Your task to perform on an android device: Go to Google maps Image 0: 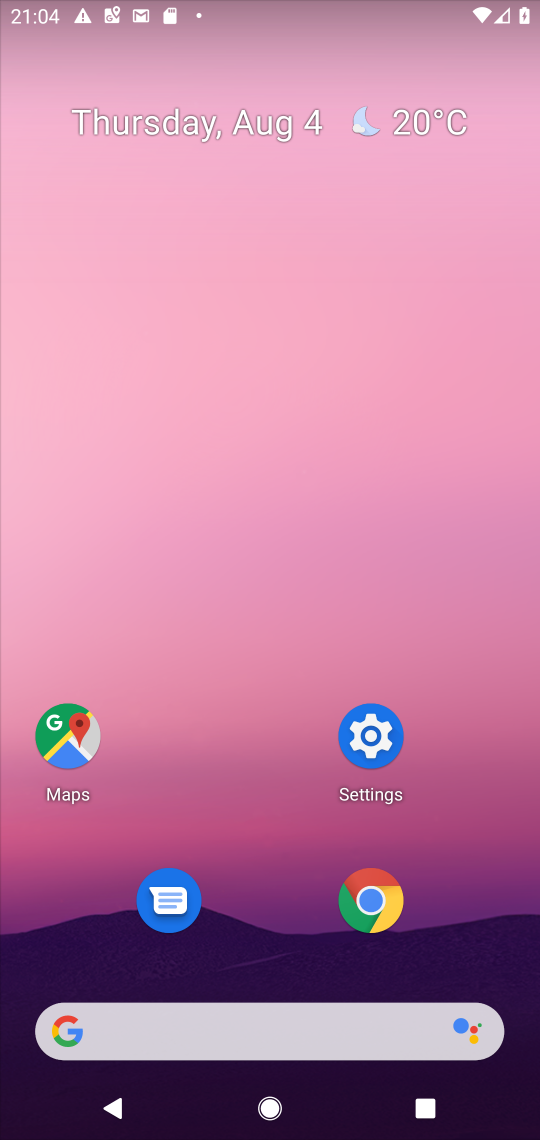
Step 0: click (61, 741)
Your task to perform on an android device: Go to Google maps Image 1: 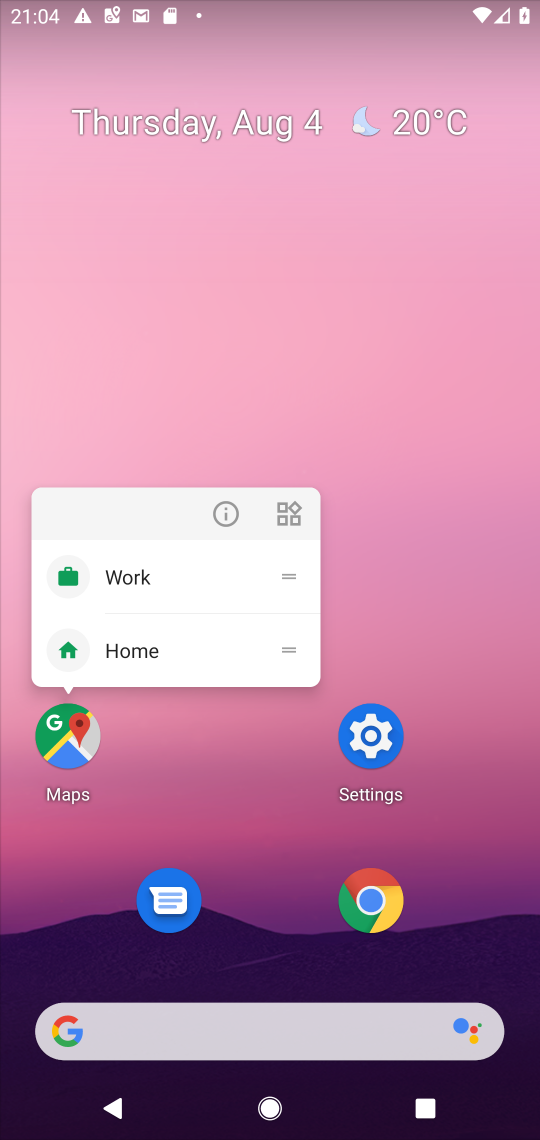
Step 1: click (77, 722)
Your task to perform on an android device: Go to Google maps Image 2: 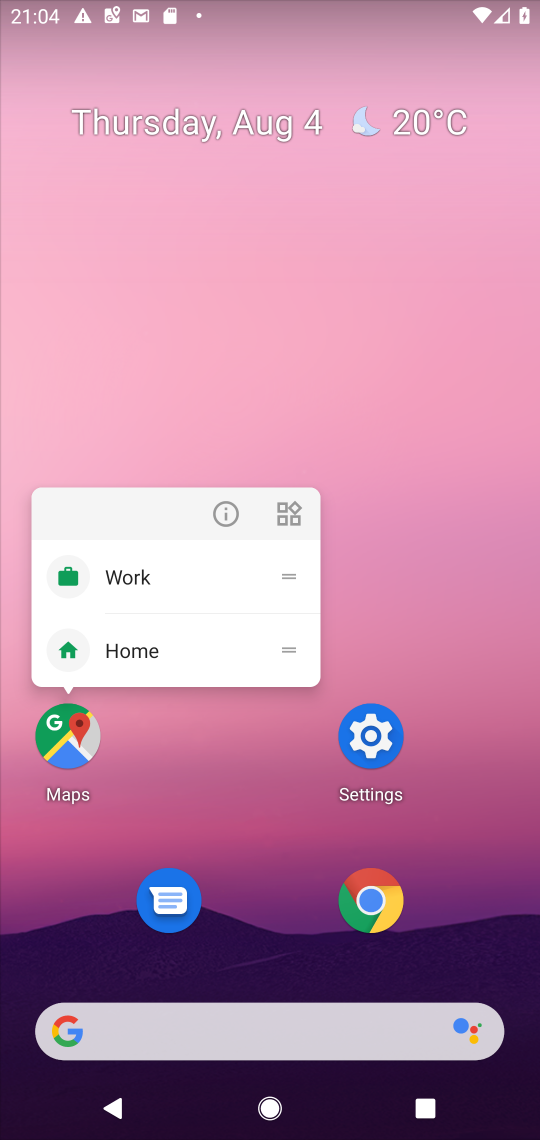
Step 2: click (65, 737)
Your task to perform on an android device: Go to Google maps Image 3: 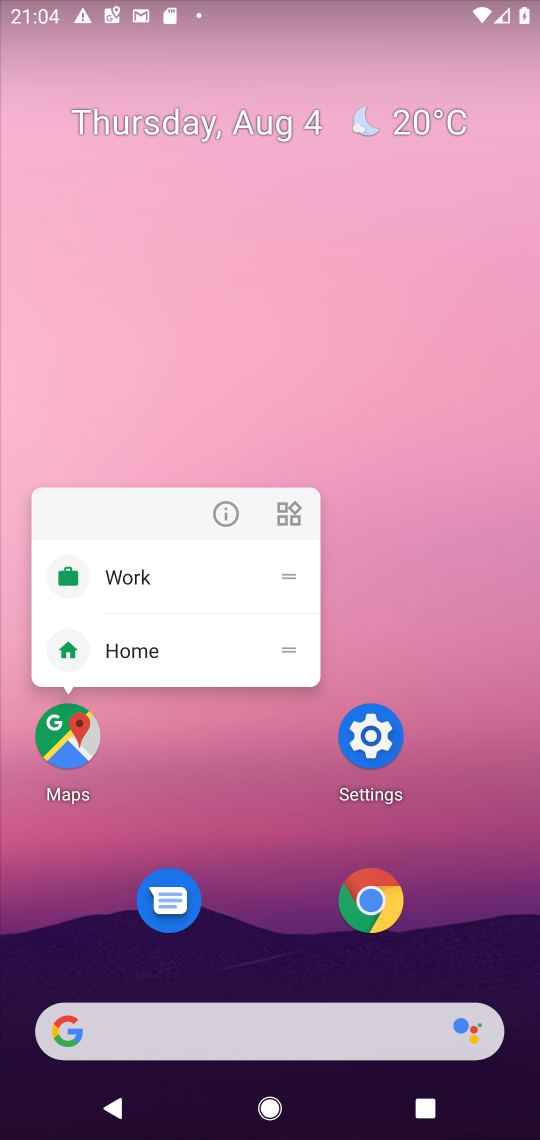
Step 3: click (65, 737)
Your task to perform on an android device: Go to Google maps Image 4: 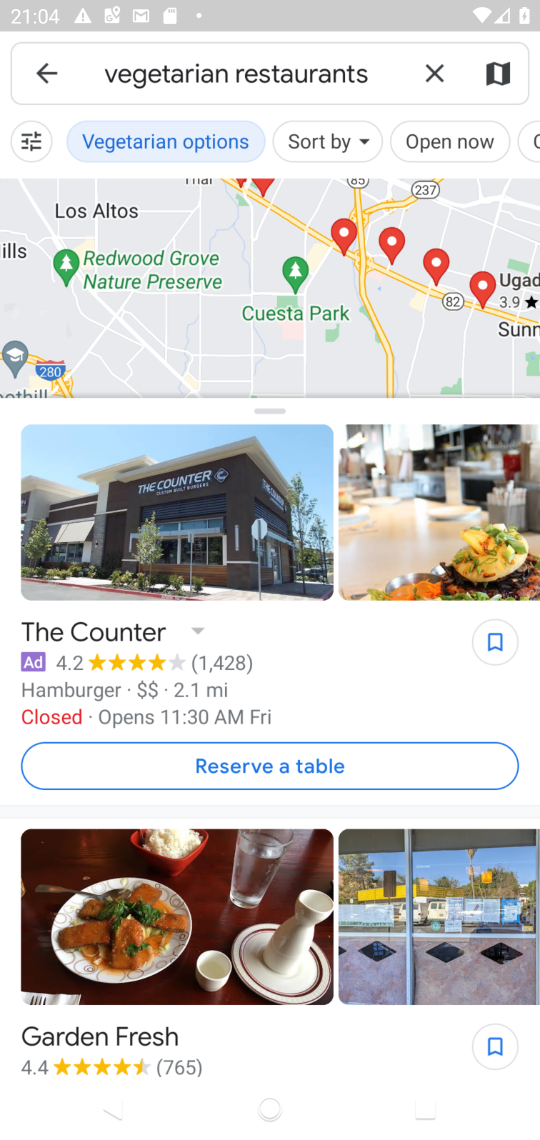
Step 4: click (65, 738)
Your task to perform on an android device: Go to Google maps Image 5: 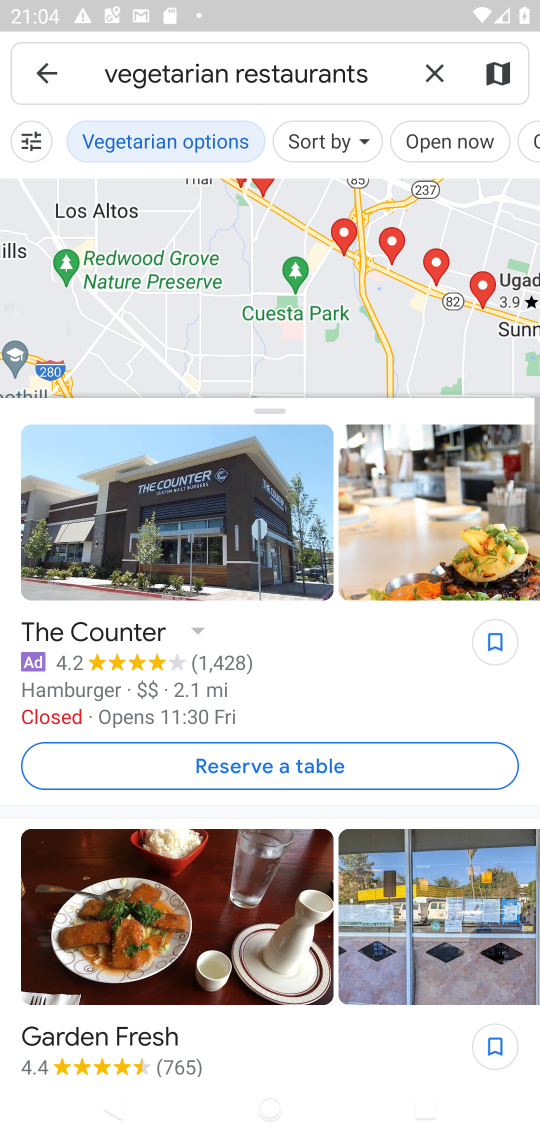
Step 5: click (441, 60)
Your task to perform on an android device: Go to Google maps Image 6: 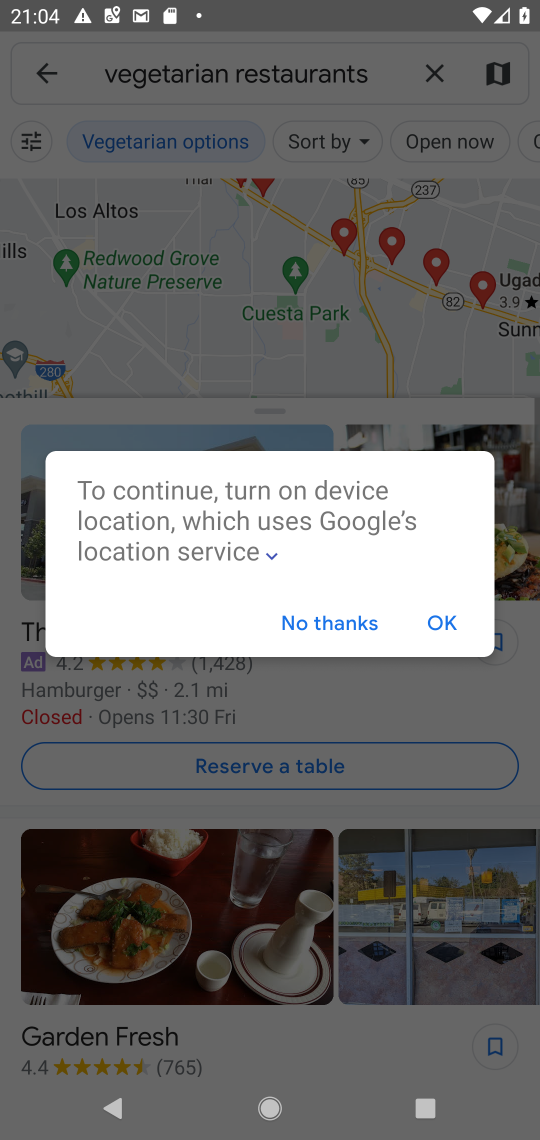
Step 6: click (441, 621)
Your task to perform on an android device: Go to Google maps Image 7: 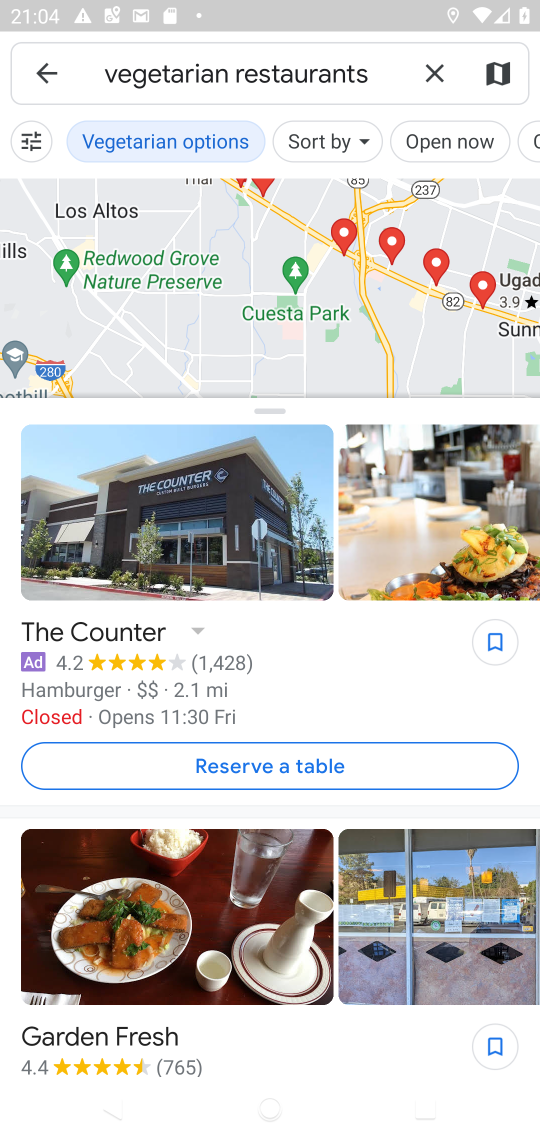
Step 7: click (434, 71)
Your task to perform on an android device: Go to Google maps Image 8: 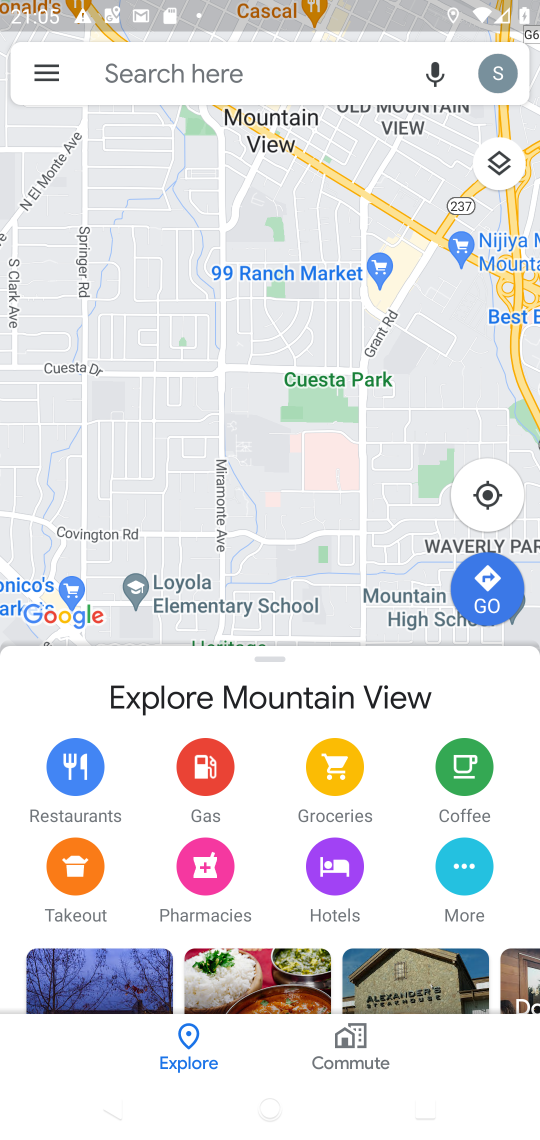
Step 8: task complete